Your task to perform on an android device: create a new album in the google photos Image 0: 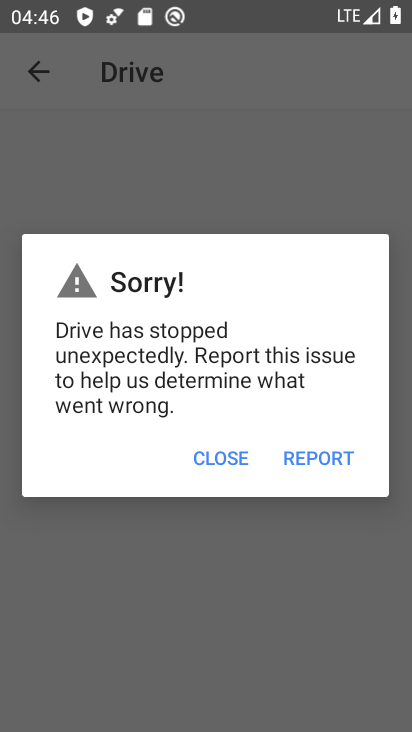
Step 0: press home button
Your task to perform on an android device: create a new album in the google photos Image 1: 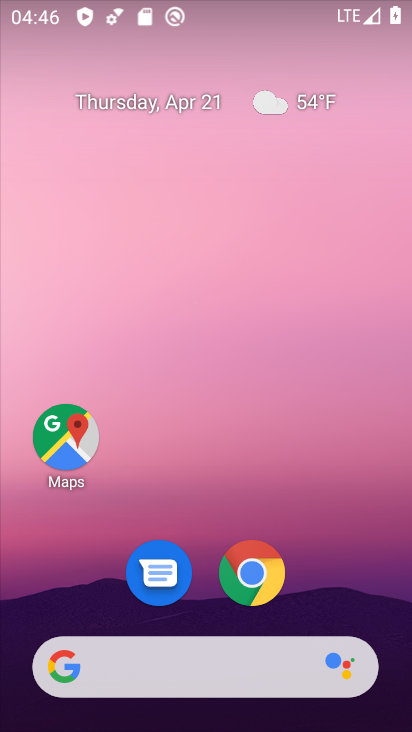
Step 1: drag from (392, 610) to (351, 176)
Your task to perform on an android device: create a new album in the google photos Image 2: 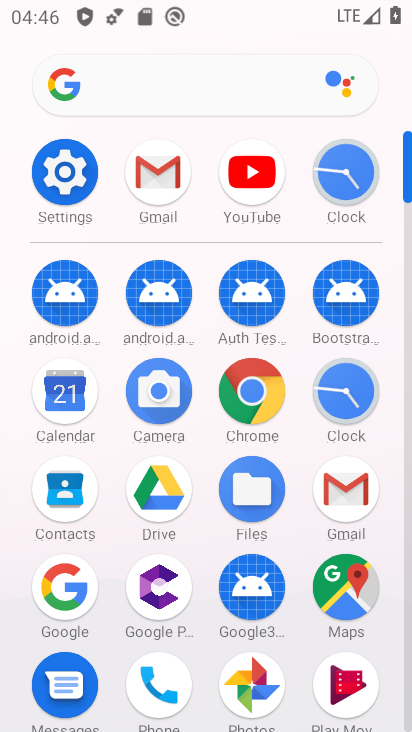
Step 2: click (406, 674)
Your task to perform on an android device: create a new album in the google photos Image 3: 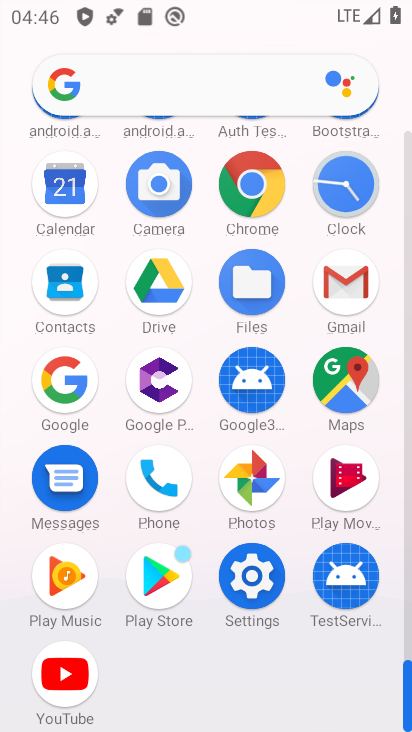
Step 3: click (250, 477)
Your task to perform on an android device: create a new album in the google photos Image 4: 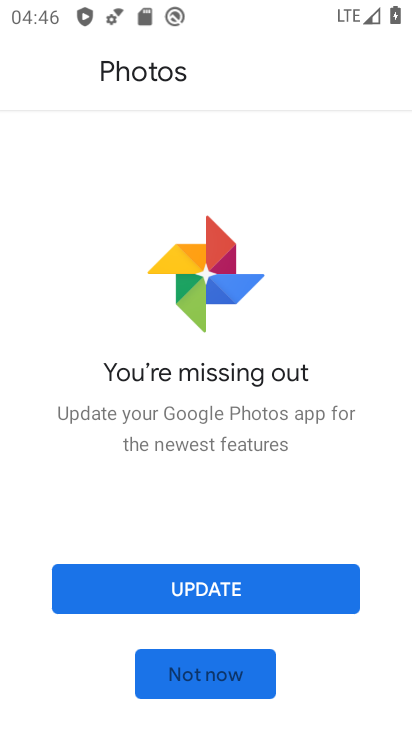
Step 4: click (200, 590)
Your task to perform on an android device: create a new album in the google photos Image 5: 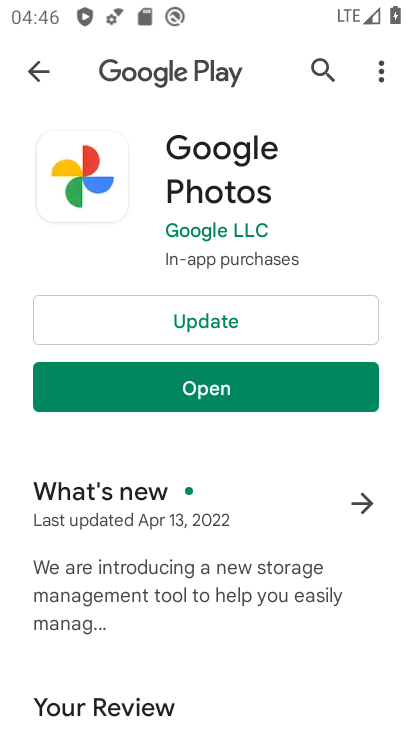
Step 5: click (197, 317)
Your task to perform on an android device: create a new album in the google photos Image 6: 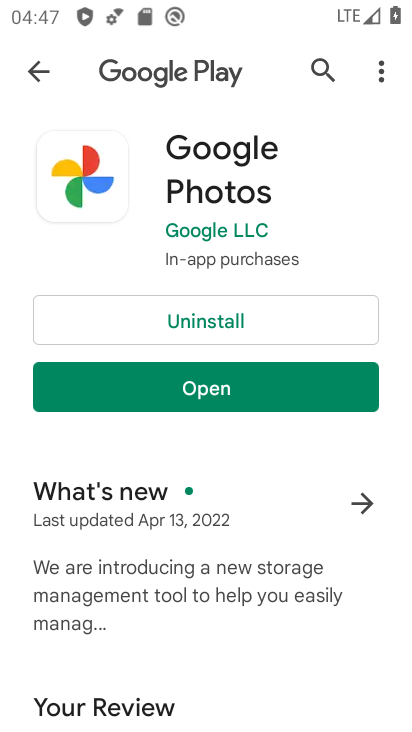
Step 6: click (205, 387)
Your task to perform on an android device: create a new album in the google photos Image 7: 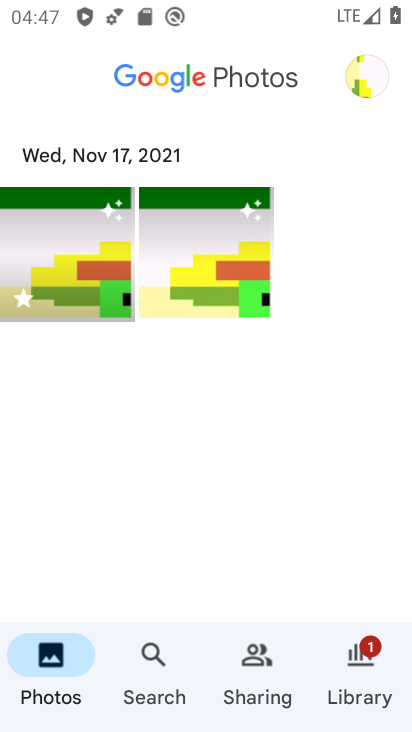
Step 7: click (361, 653)
Your task to perform on an android device: create a new album in the google photos Image 8: 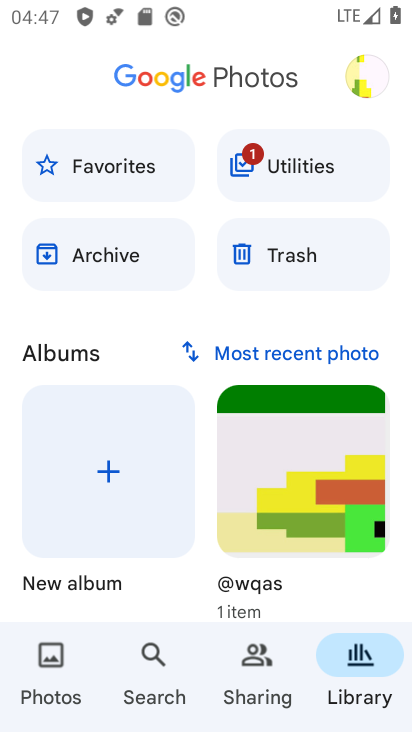
Step 8: click (106, 464)
Your task to perform on an android device: create a new album in the google photos Image 9: 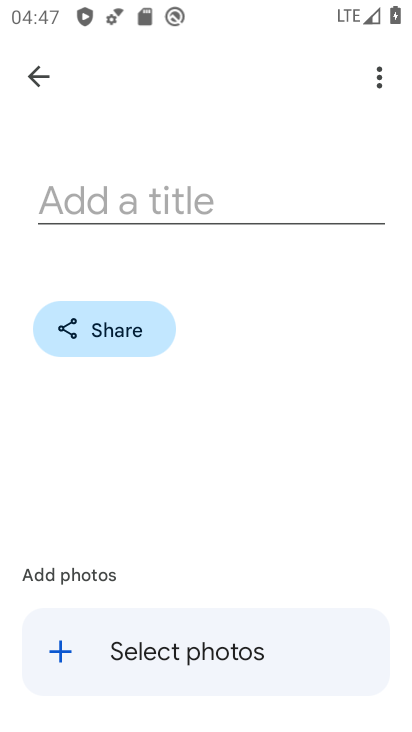
Step 9: click (132, 197)
Your task to perform on an android device: create a new album in the google photos Image 10: 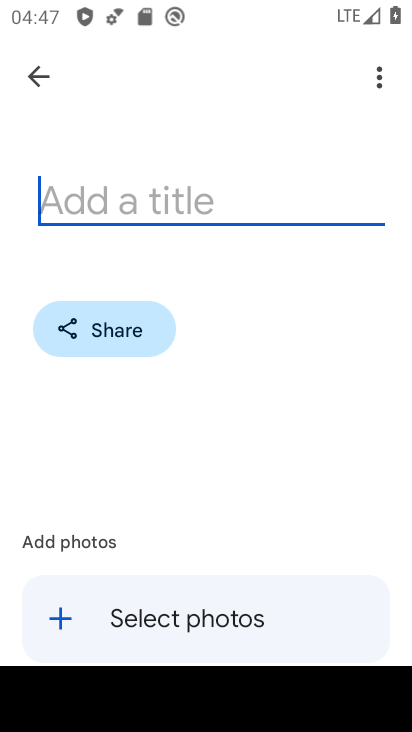
Step 10: type "sgdhdhjjk"
Your task to perform on an android device: create a new album in the google photos Image 11: 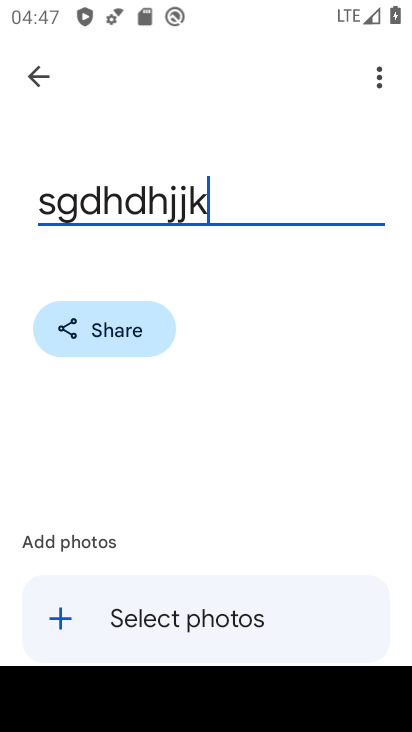
Step 11: click (54, 616)
Your task to perform on an android device: create a new album in the google photos Image 12: 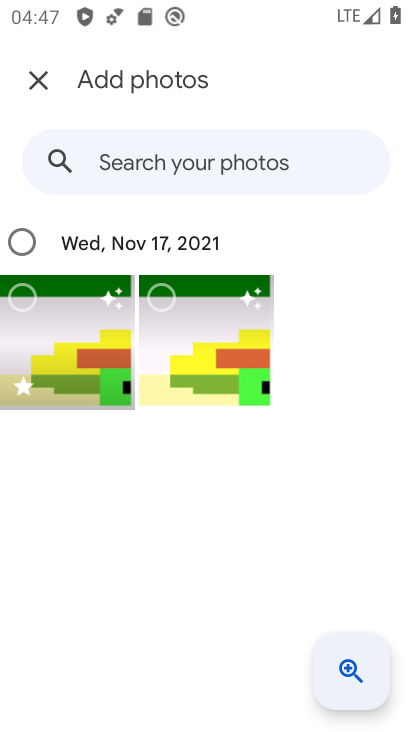
Step 12: click (21, 296)
Your task to perform on an android device: create a new album in the google photos Image 13: 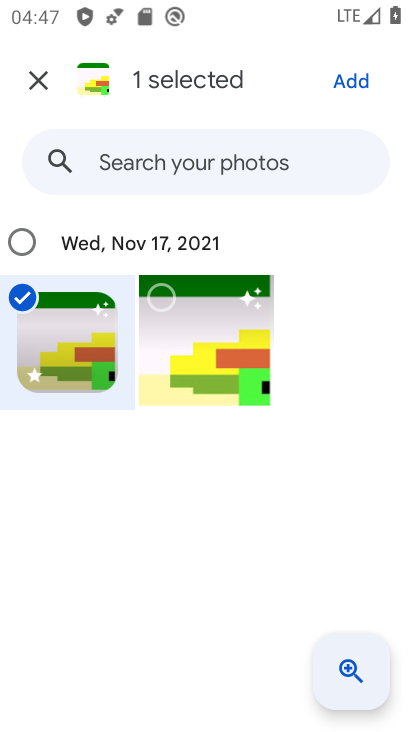
Step 13: click (162, 296)
Your task to perform on an android device: create a new album in the google photos Image 14: 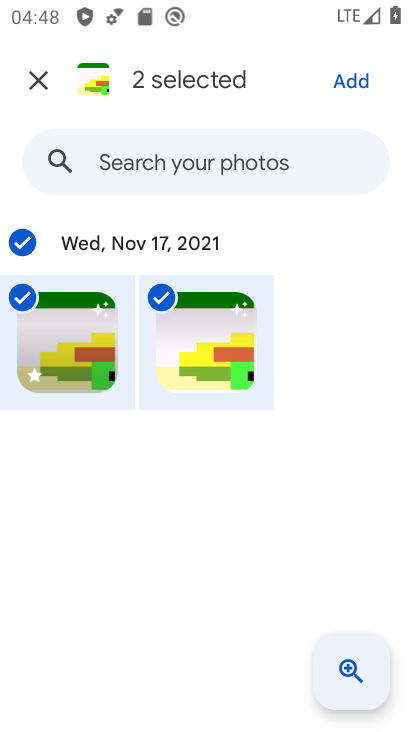
Step 14: click (350, 79)
Your task to perform on an android device: create a new album in the google photos Image 15: 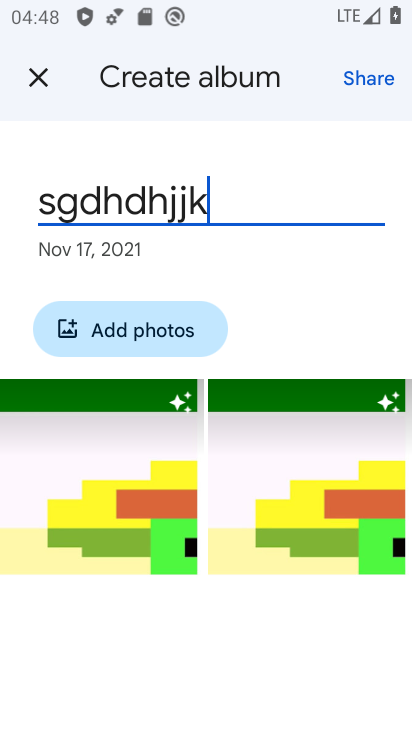
Step 15: task complete